Your task to perform on an android device: Open settings on Google Maps Image 0: 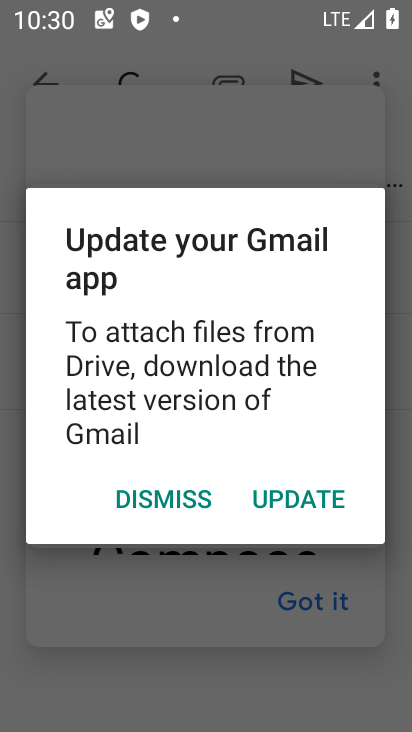
Step 0: press home button
Your task to perform on an android device: Open settings on Google Maps Image 1: 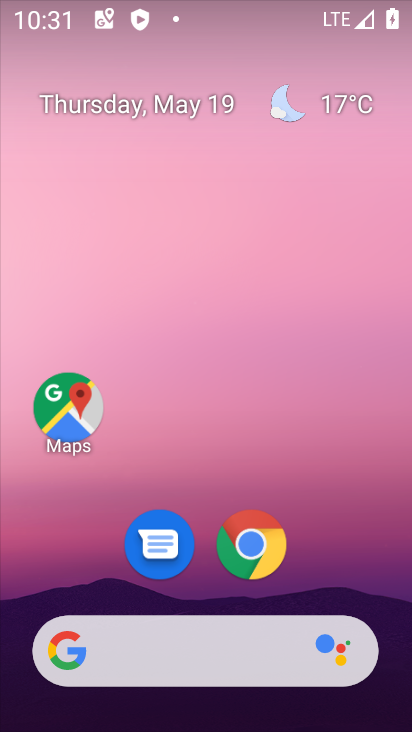
Step 1: drag from (224, 705) to (226, 60)
Your task to perform on an android device: Open settings on Google Maps Image 2: 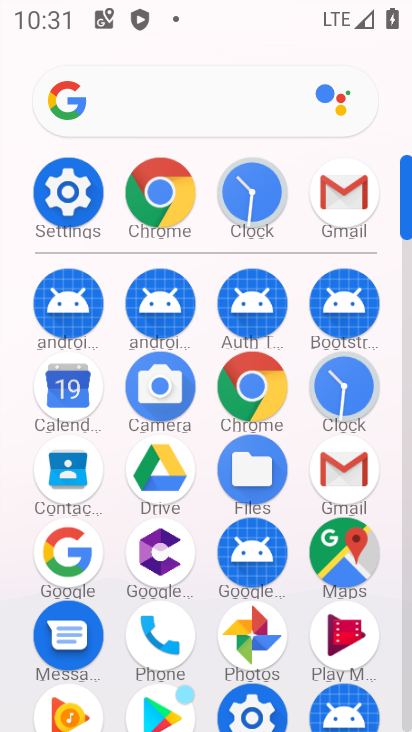
Step 2: click (355, 539)
Your task to perform on an android device: Open settings on Google Maps Image 3: 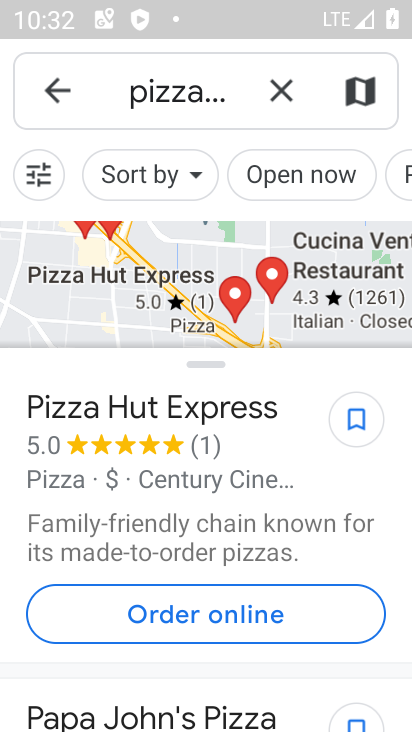
Step 3: click (48, 95)
Your task to perform on an android device: Open settings on Google Maps Image 4: 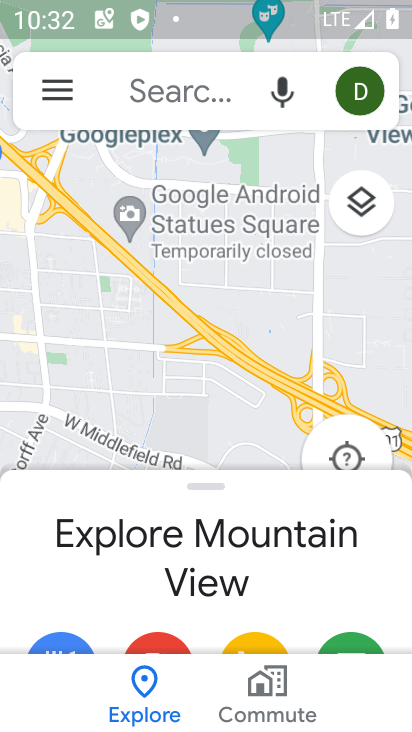
Step 4: click (76, 82)
Your task to perform on an android device: Open settings on Google Maps Image 5: 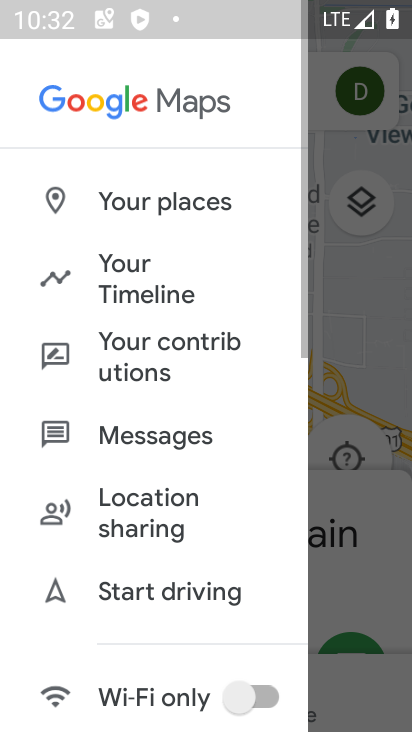
Step 5: drag from (158, 625) to (197, 54)
Your task to perform on an android device: Open settings on Google Maps Image 6: 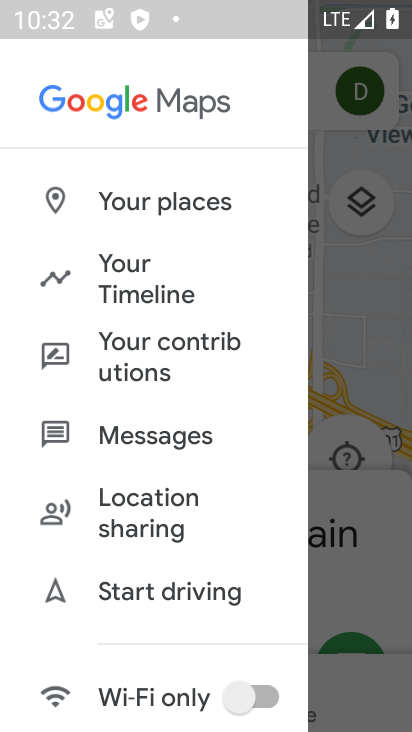
Step 6: drag from (130, 642) to (169, 16)
Your task to perform on an android device: Open settings on Google Maps Image 7: 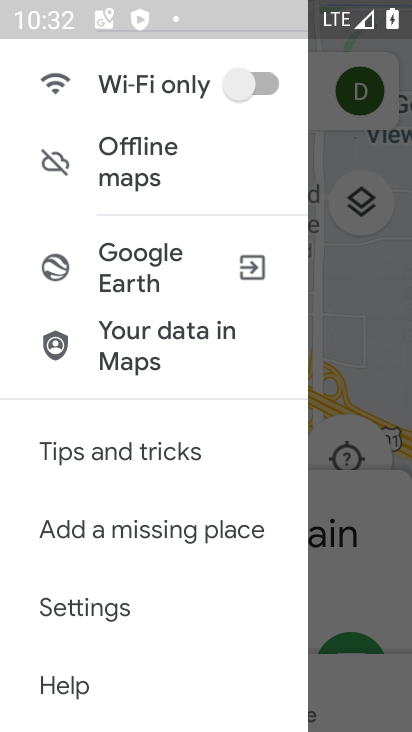
Step 7: click (83, 593)
Your task to perform on an android device: Open settings on Google Maps Image 8: 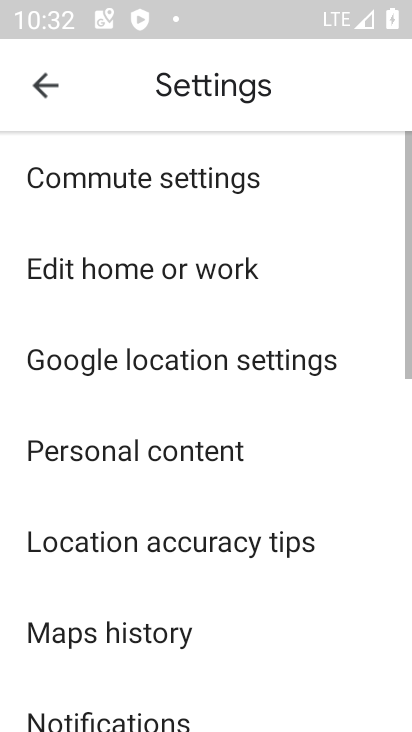
Step 8: task complete